Your task to perform on an android device: Search for sushi restaurants on Maps Image 0: 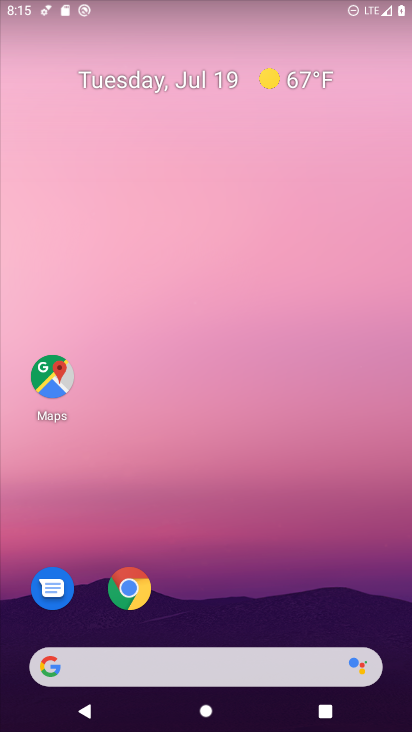
Step 0: drag from (356, 606) to (389, 104)
Your task to perform on an android device: Search for sushi restaurants on Maps Image 1: 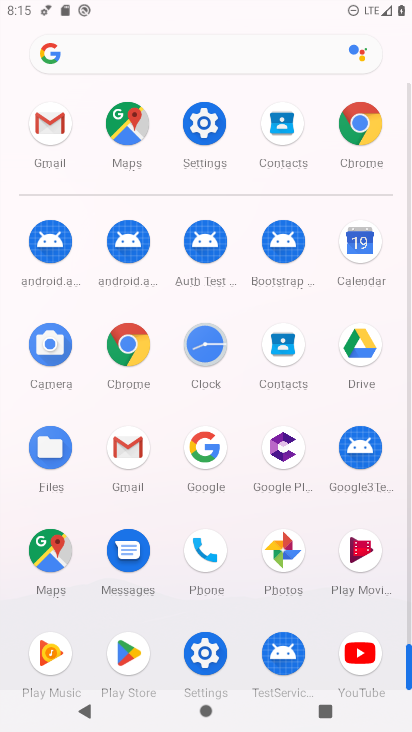
Step 1: click (59, 554)
Your task to perform on an android device: Search for sushi restaurants on Maps Image 2: 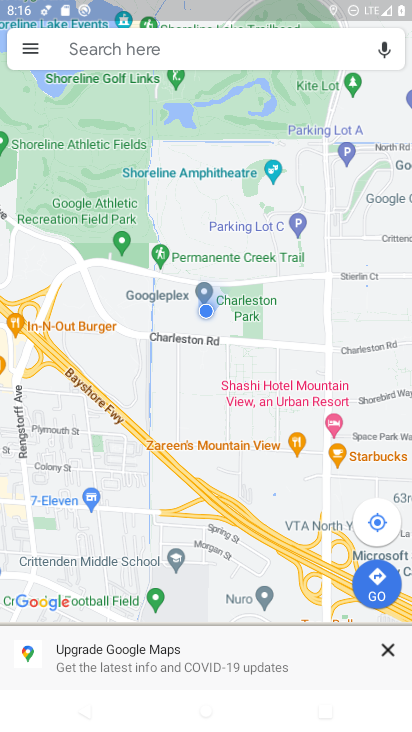
Step 2: click (167, 53)
Your task to perform on an android device: Search for sushi restaurants on Maps Image 3: 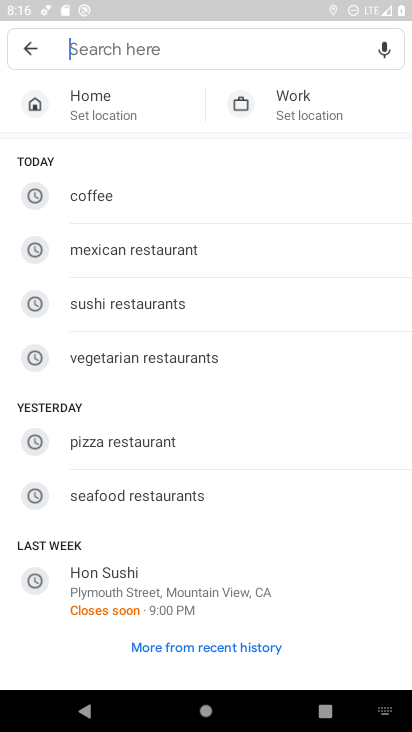
Step 3: type "sushi restaurants"
Your task to perform on an android device: Search for sushi restaurants on Maps Image 4: 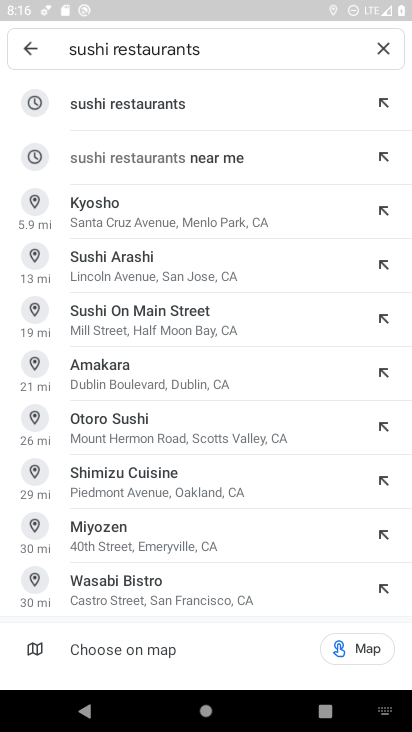
Step 4: click (288, 105)
Your task to perform on an android device: Search for sushi restaurants on Maps Image 5: 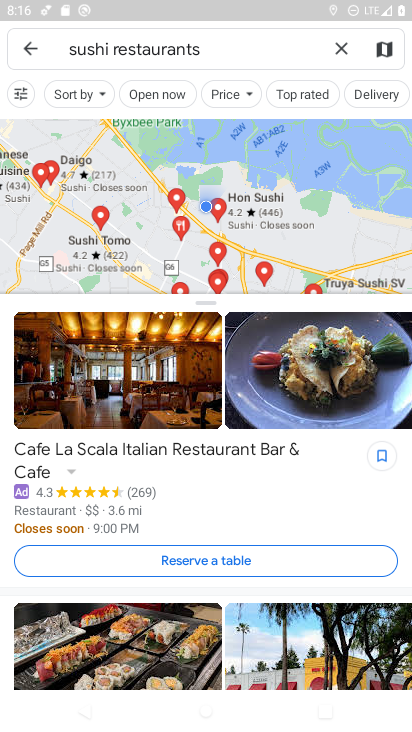
Step 5: task complete